Your task to perform on an android device: turn off data saver in the chrome app Image 0: 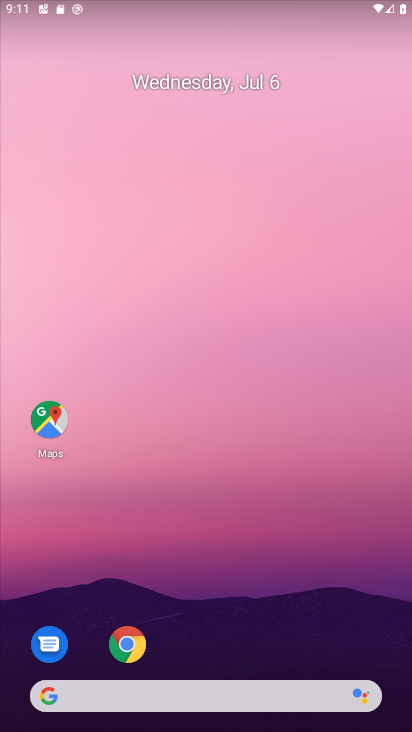
Step 0: drag from (188, 620) to (263, 48)
Your task to perform on an android device: turn off data saver in the chrome app Image 1: 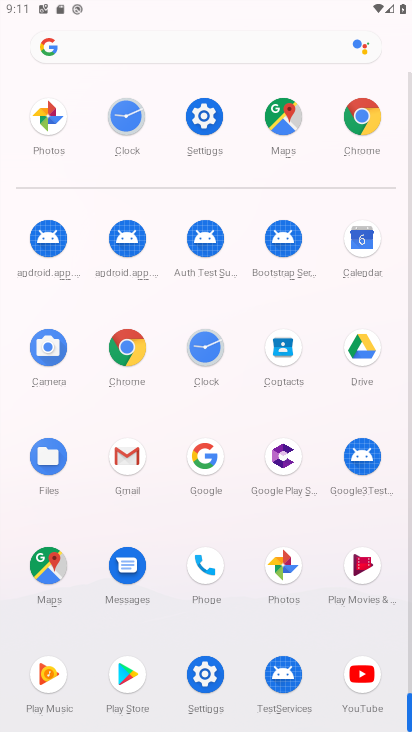
Step 1: click (362, 148)
Your task to perform on an android device: turn off data saver in the chrome app Image 2: 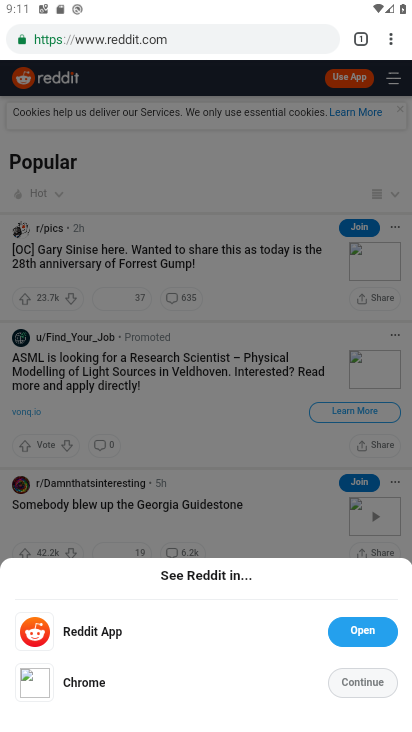
Step 2: click (393, 42)
Your task to perform on an android device: turn off data saver in the chrome app Image 3: 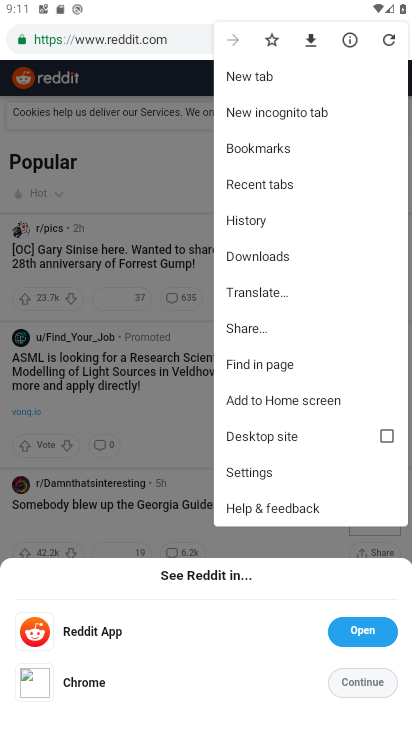
Step 3: click (276, 471)
Your task to perform on an android device: turn off data saver in the chrome app Image 4: 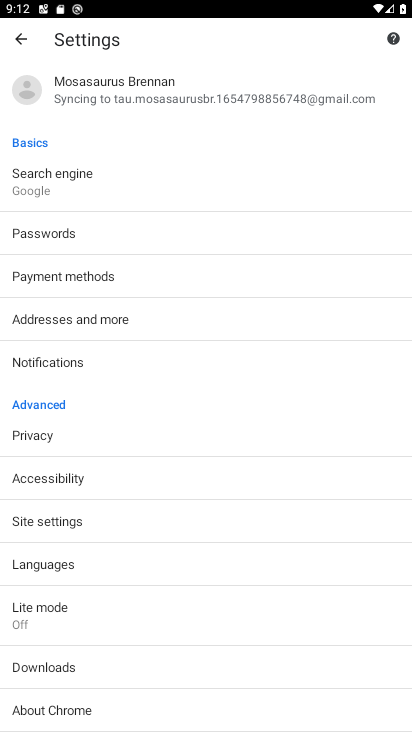
Step 4: drag from (163, 492) to (173, 322)
Your task to perform on an android device: turn off data saver in the chrome app Image 5: 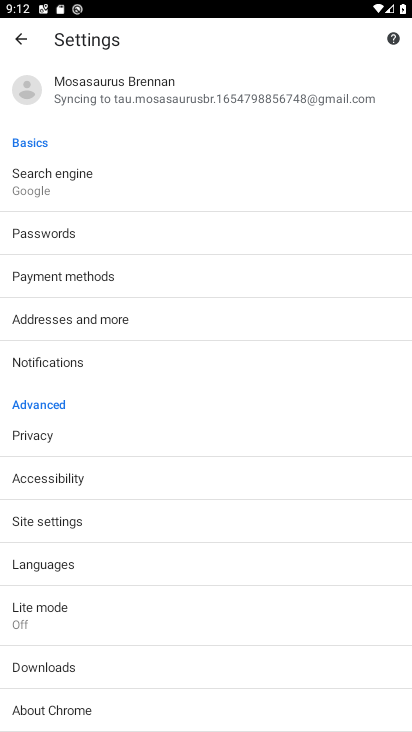
Step 5: click (77, 615)
Your task to perform on an android device: turn off data saver in the chrome app Image 6: 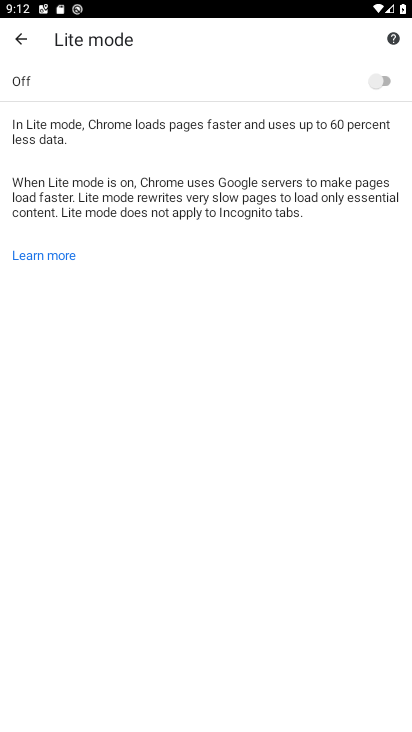
Step 6: task complete